Your task to perform on an android device: uninstall "Fetch Rewards" Image 0: 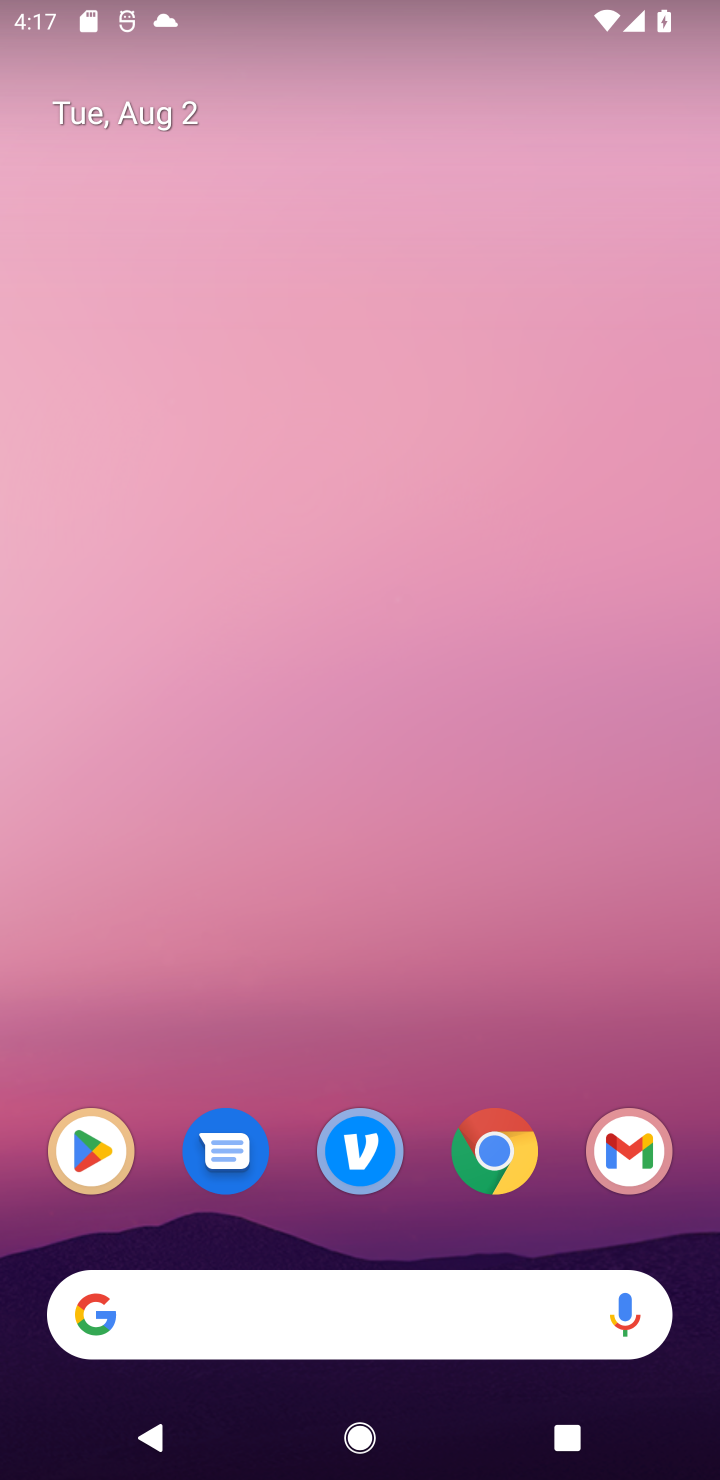
Step 0: drag from (282, 1268) to (338, 345)
Your task to perform on an android device: uninstall "Fetch Rewards" Image 1: 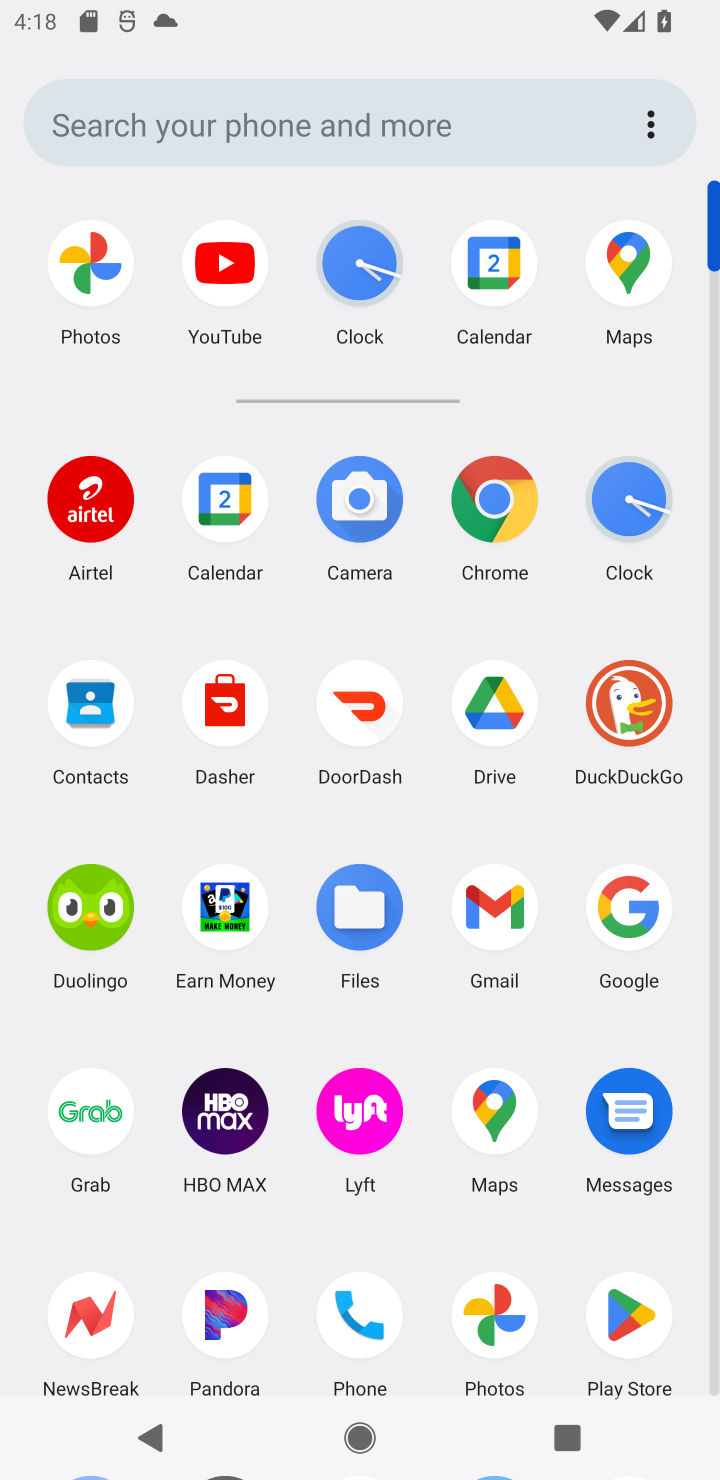
Step 1: click (630, 1348)
Your task to perform on an android device: uninstall "Fetch Rewards" Image 2: 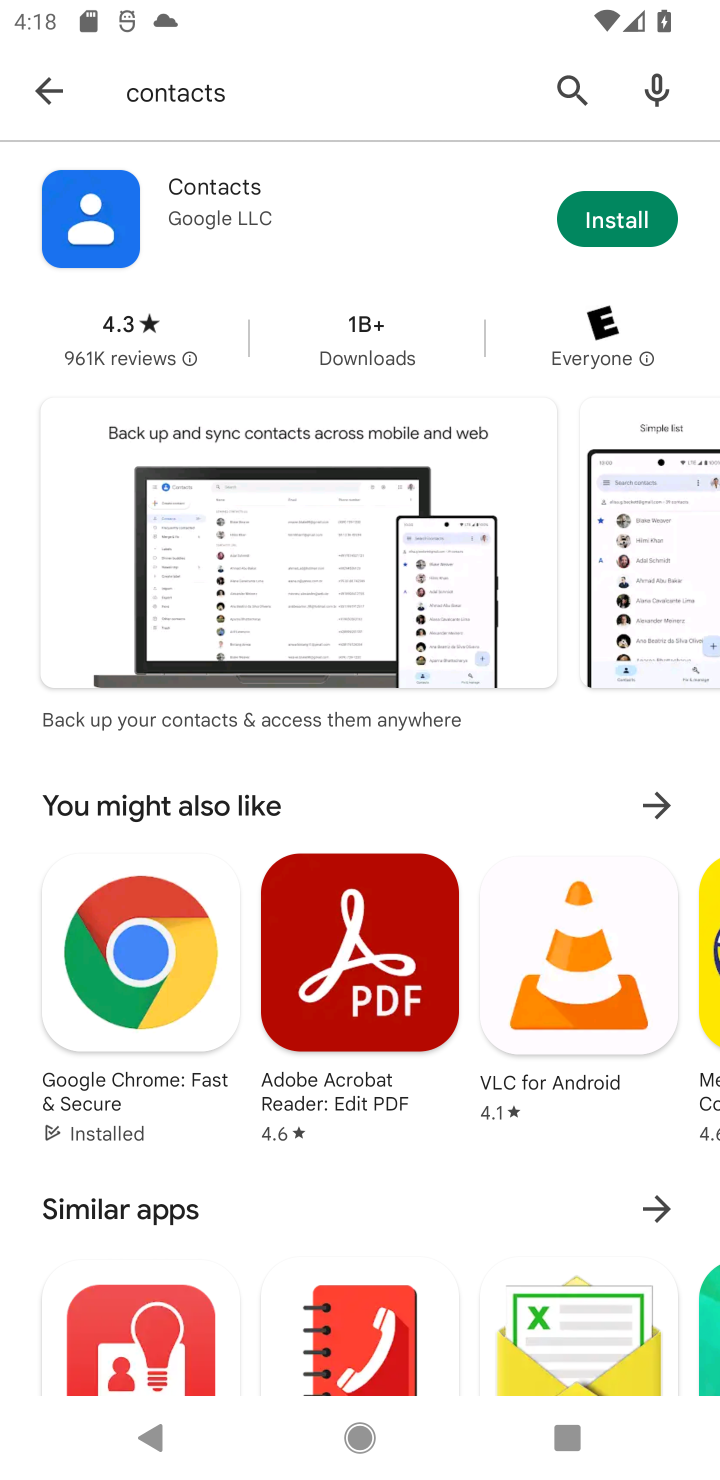
Step 2: click (62, 95)
Your task to perform on an android device: uninstall "Fetch Rewards" Image 3: 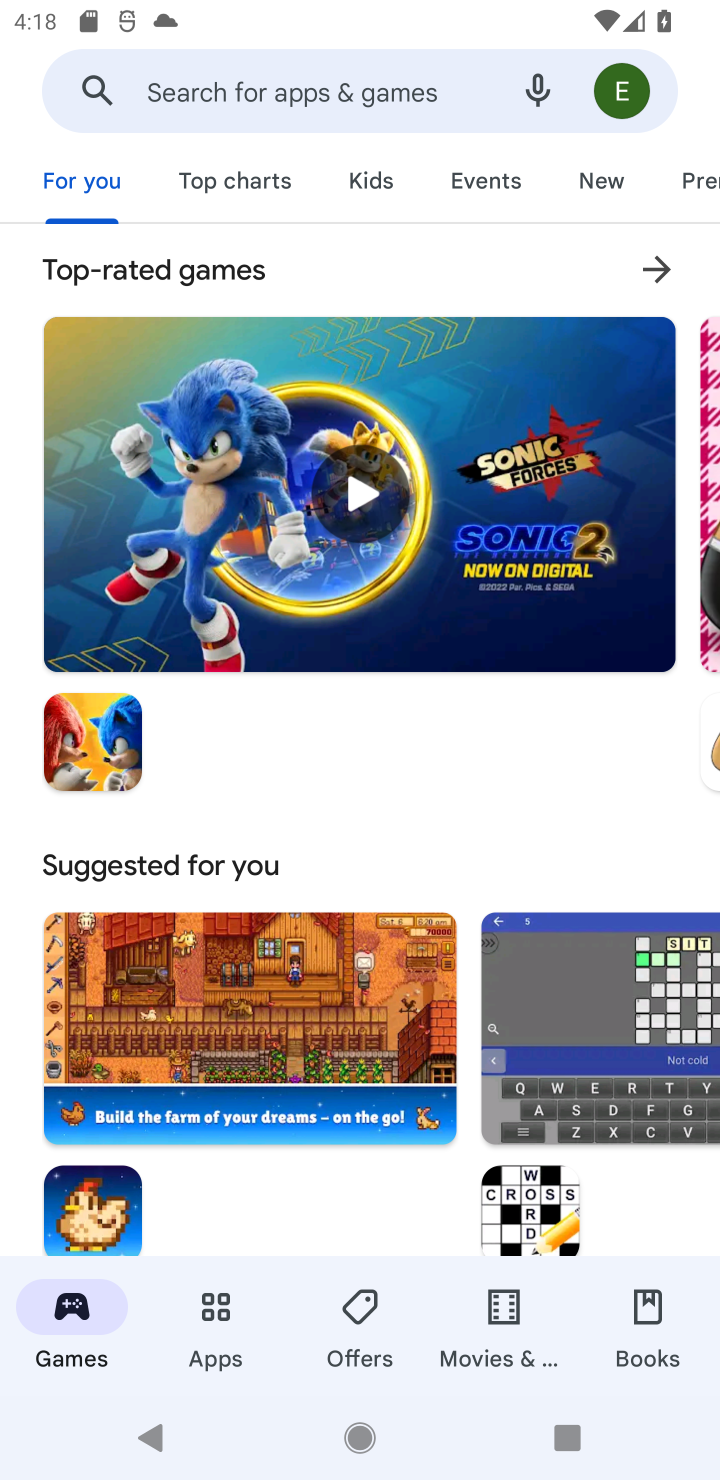
Step 3: click (163, 75)
Your task to perform on an android device: uninstall "Fetch Rewards" Image 4: 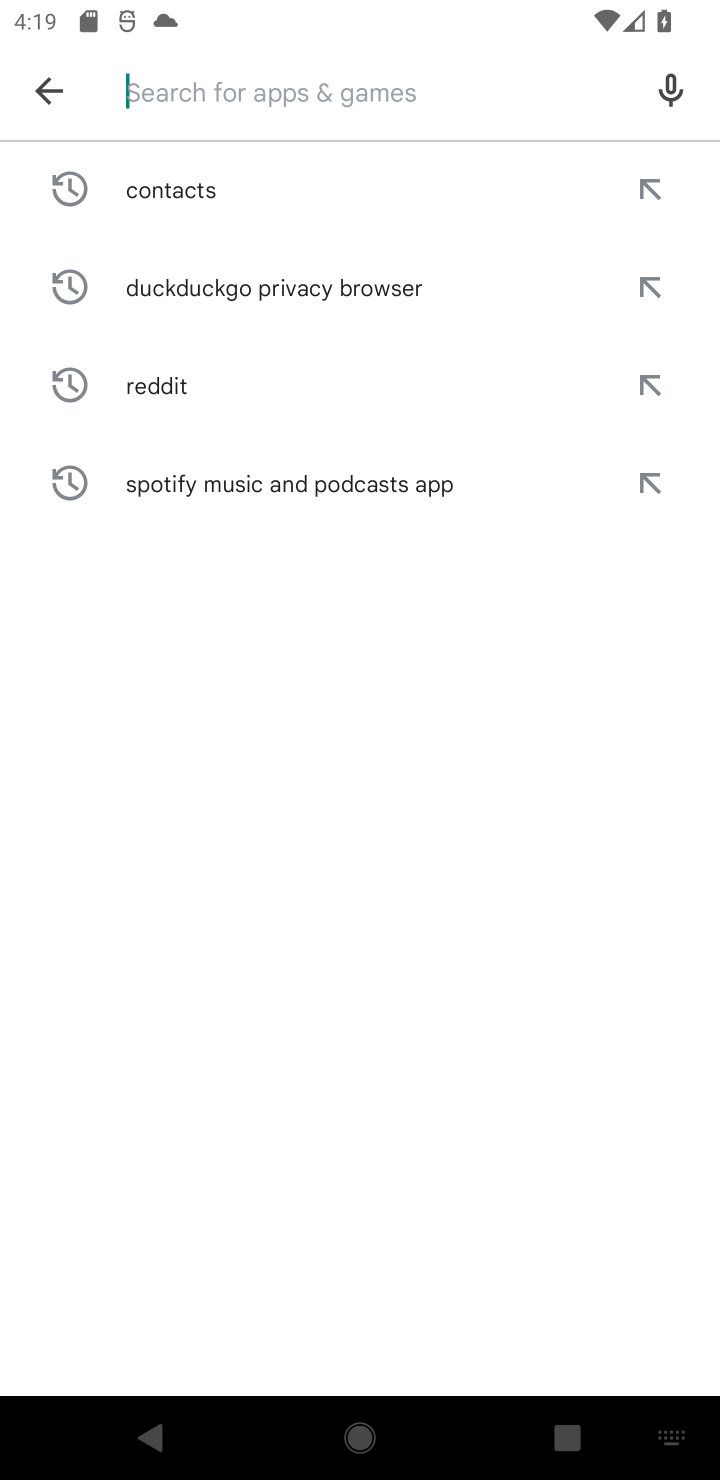
Step 4: type "Fetch Rewards"
Your task to perform on an android device: uninstall "Fetch Rewards" Image 5: 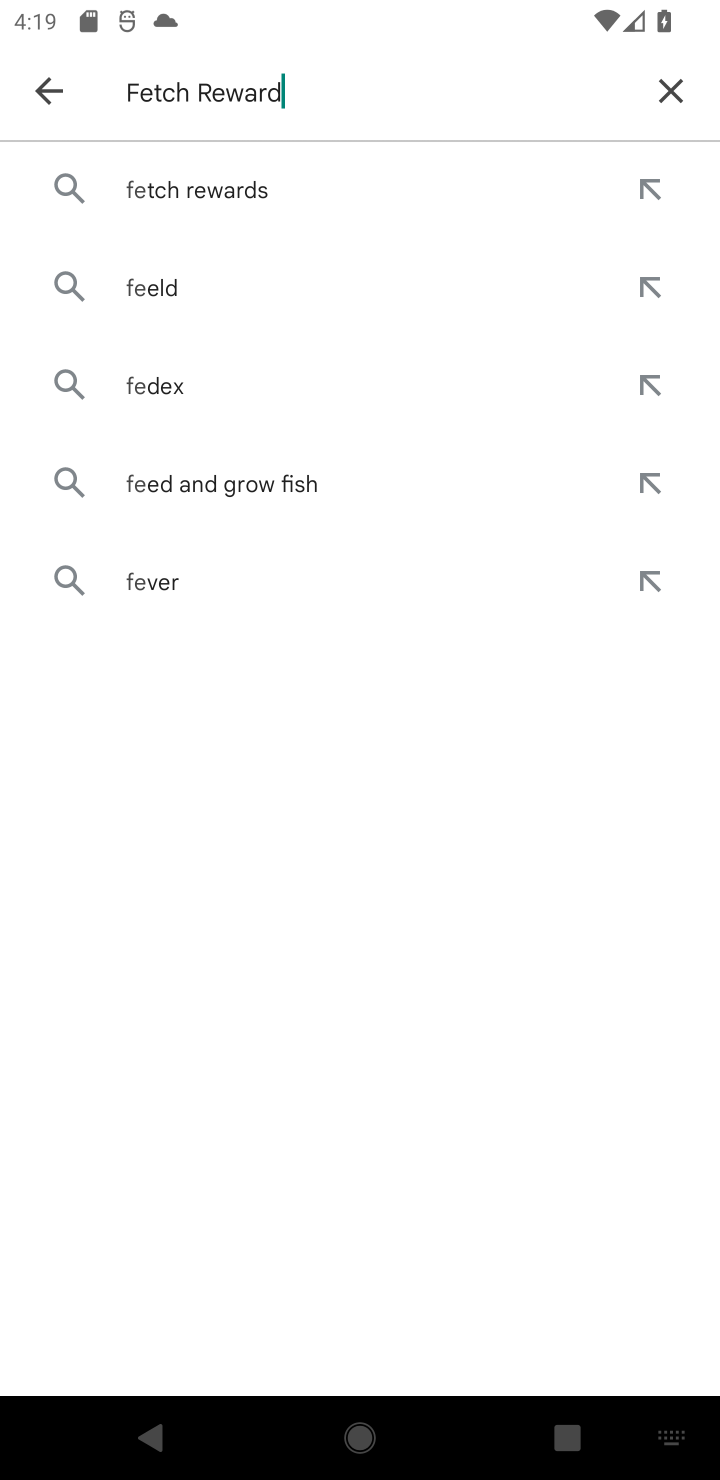
Step 5: type ""
Your task to perform on an android device: uninstall "Fetch Rewards" Image 6: 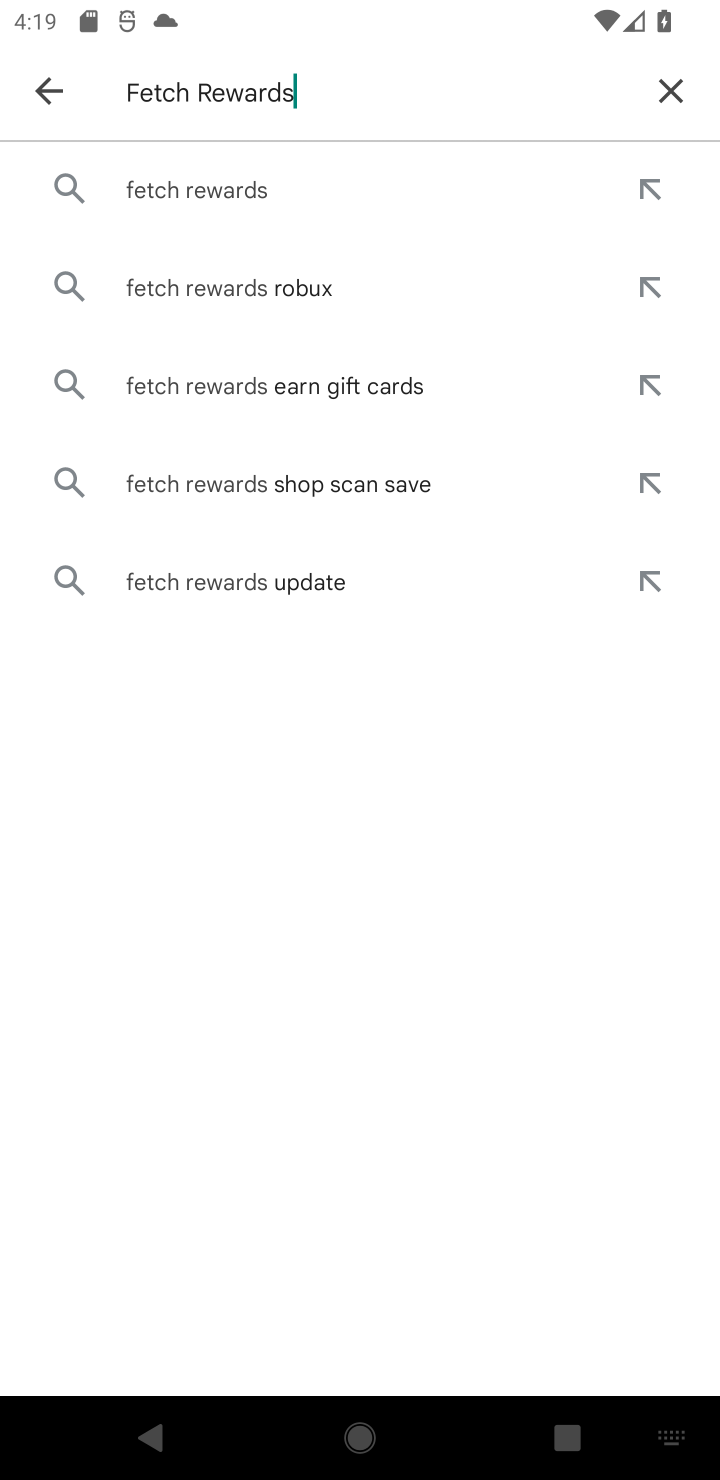
Step 6: click (372, 183)
Your task to perform on an android device: uninstall "Fetch Rewards" Image 7: 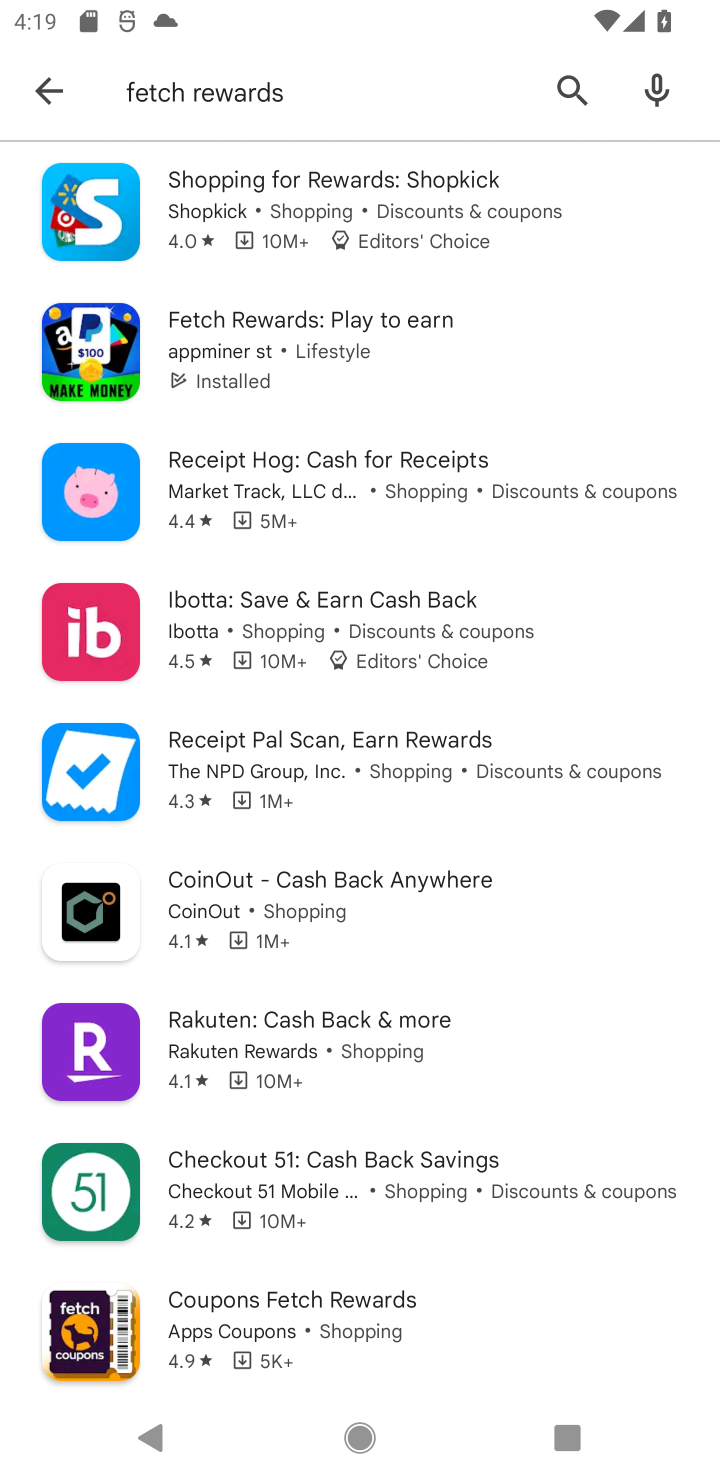
Step 7: click (389, 352)
Your task to perform on an android device: uninstall "Fetch Rewards" Image 8: 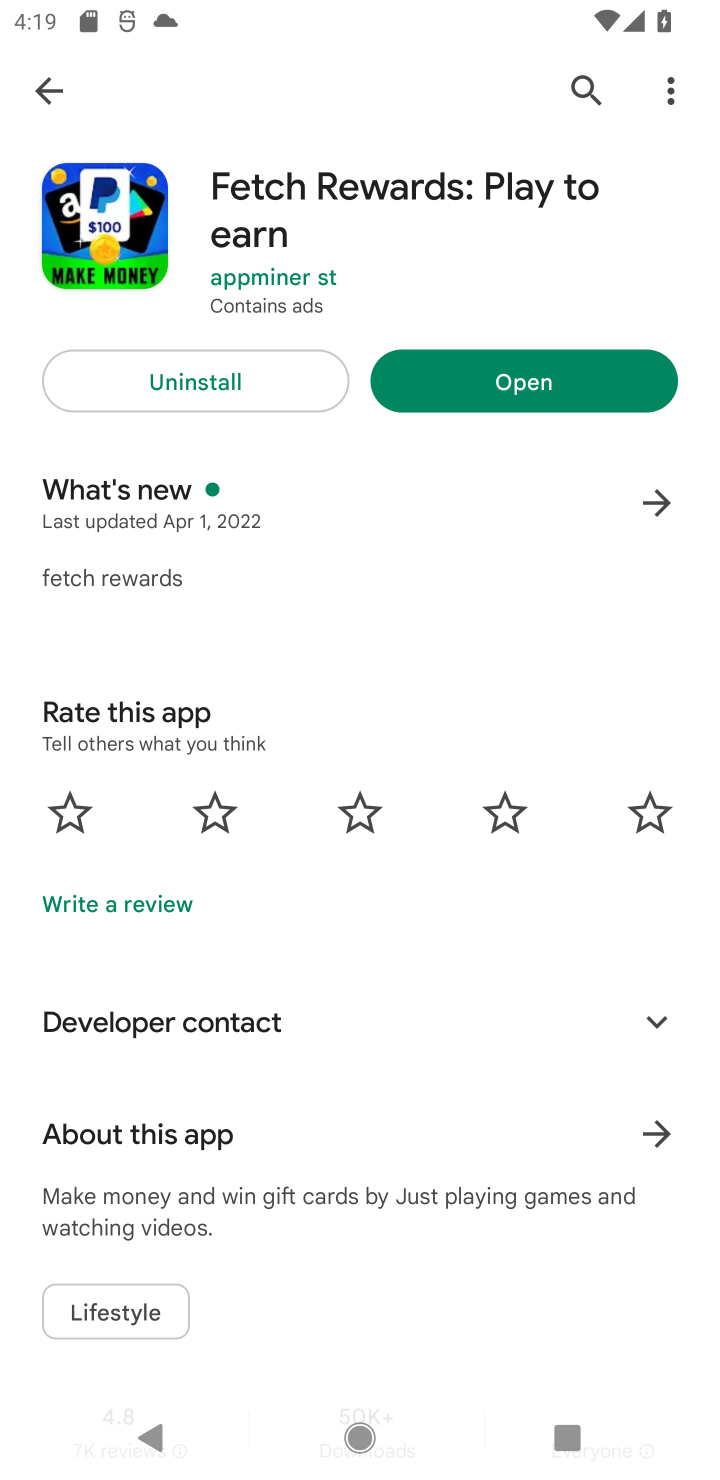
Step 8: click (300, 377)
Your task to perform on an android device: uninstall "Fetch Rewards" Image 9: 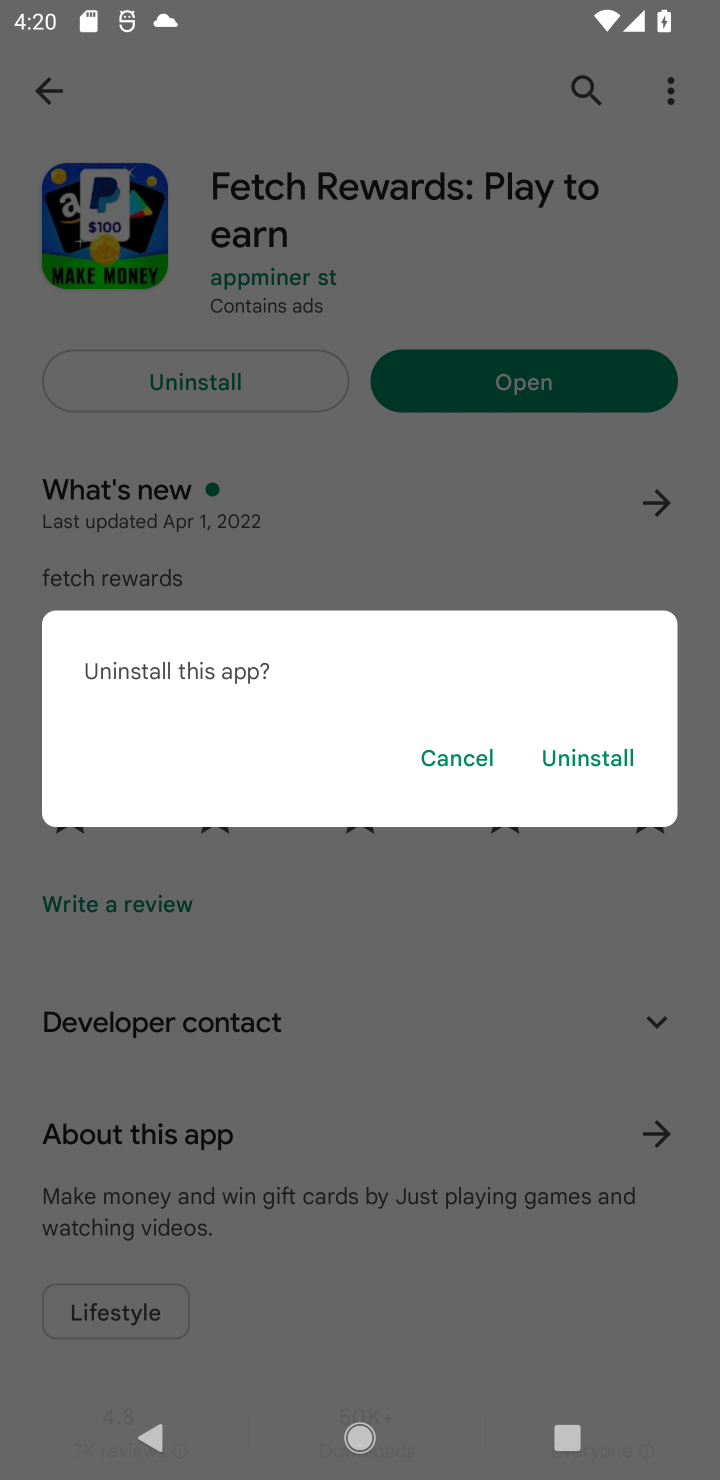
Step 9: click (604, 745)
Your task to perform on an android device: uninstall "Fetch Rewards" Image 10: 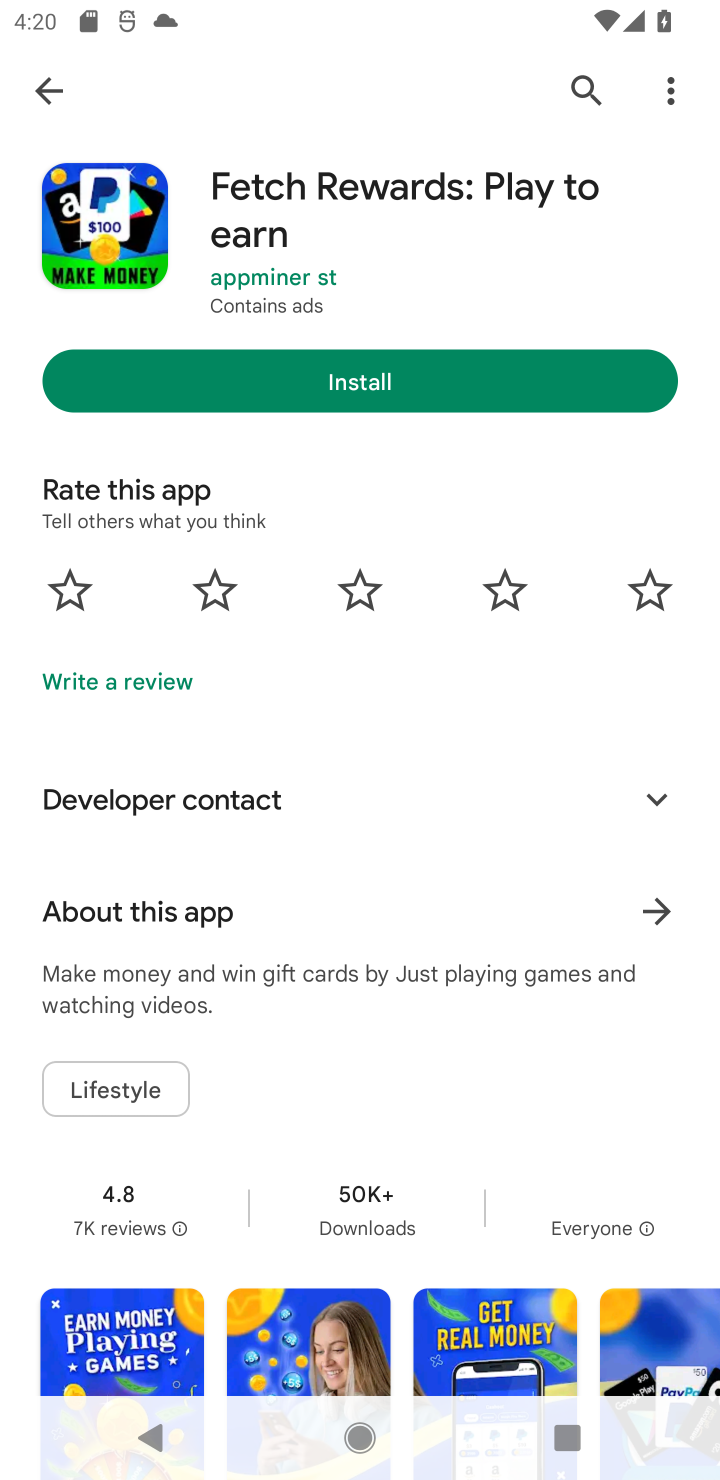
Step 10: task complete